Your task to perform on an android device: turn on showing notifications on the lock screen Image 0: 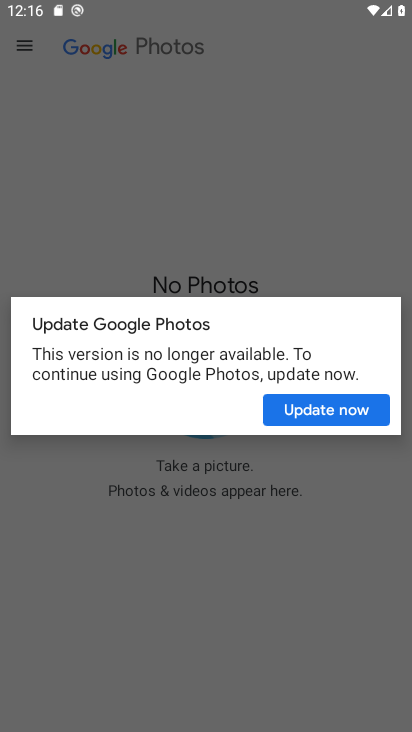
Step 0: press home button
Your task to perform on an android device: turn on showing notifications on the lock screen Image 1: 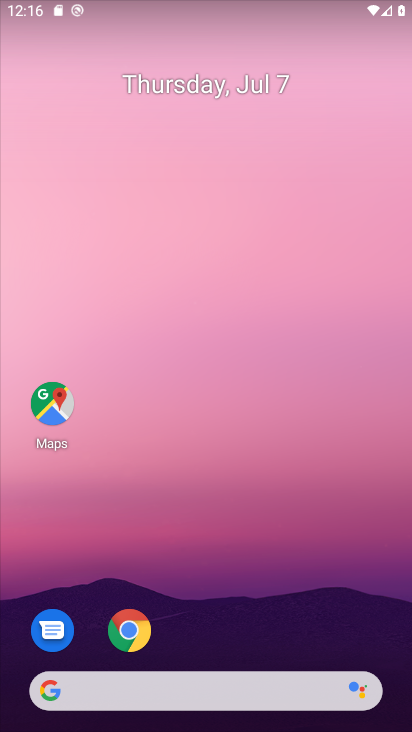
Step 1: drag from (207, 642) to (209, 219)
Your task to perform on an android device: turn on showing notifications on the lock screen Image 2: 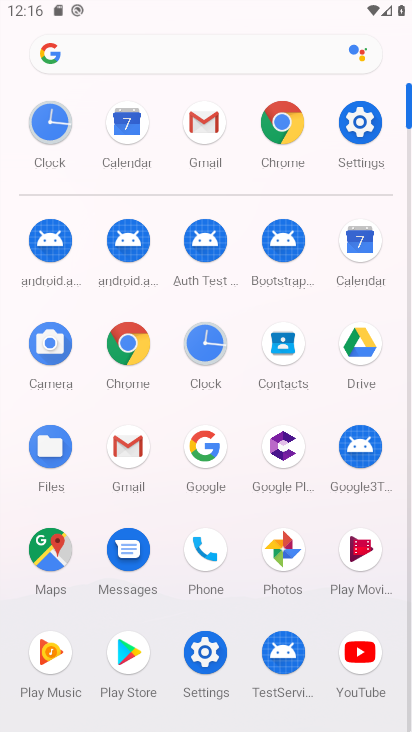
Step 2: click (367, 118)
Your task to perform on an android device: turn on showing notifications on the lock screen Image 3: 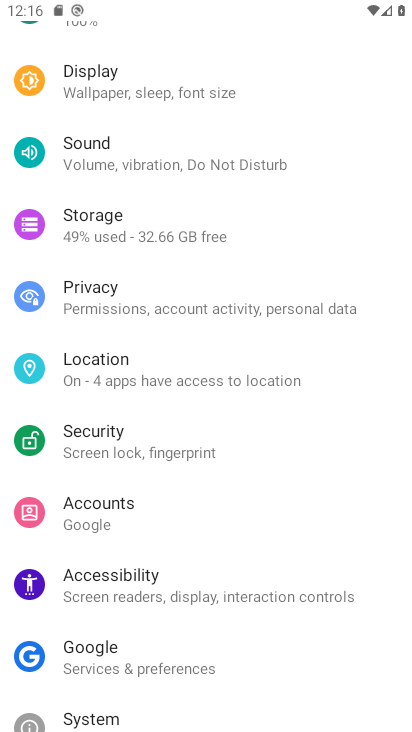
Step 3: drag from (136, 80) to (197, 596)
Your task to perform on an android device: turn on showing notifications on the lock screen Image 4: 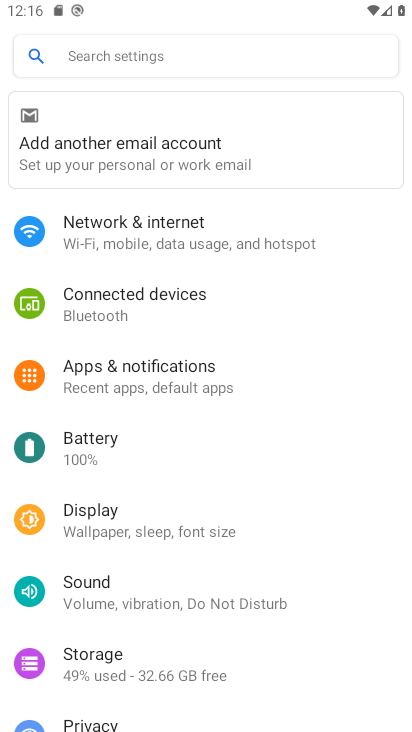
Step 4: click (146, 373)
Your task to perform on an android device: turn on showing notifications on the lock screen Image 5: 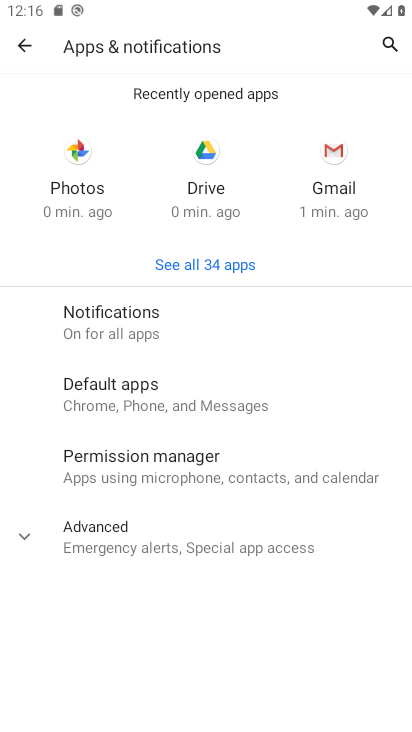
Step 5: click (174, 324)
Your task to perform on an android device: turn on showing notifications on the lock screen Image 6: 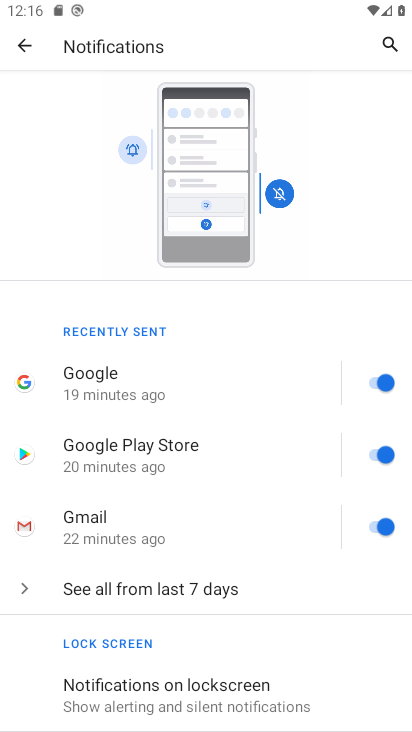
Step 6: drag from (219, 661) to (221, 390)
Your task to perform on an android device: turn on showing notifications on the lock screen Image 7: 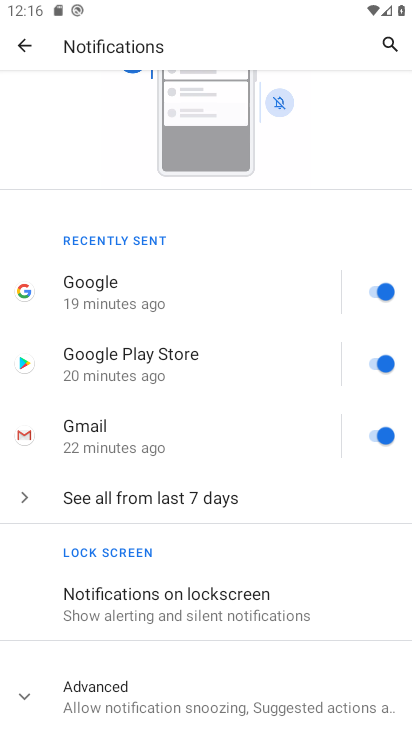
Step 7: click (148, 586)
Your task to perform on an android device: turn on showing notifications on the lock screen Image 8: 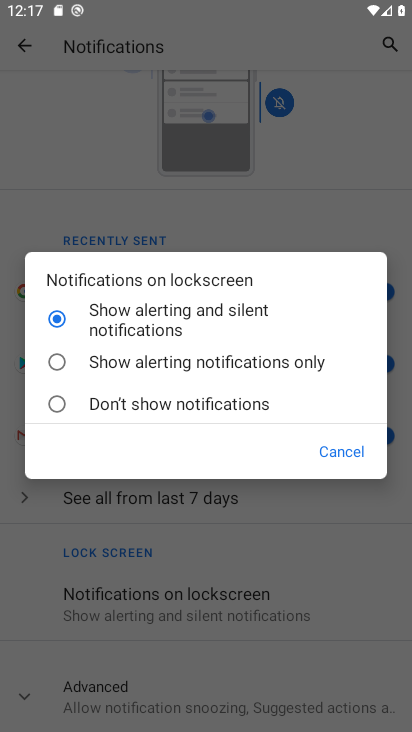
Step 8: task complete